Your task to perform on an android device: Open maps Image 0: 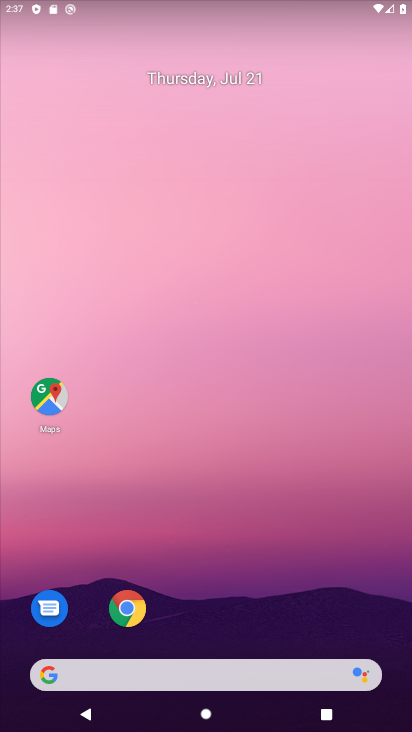
Step 0: click (50, 389)
Your task to perform on an android device: Open maps Image 1: 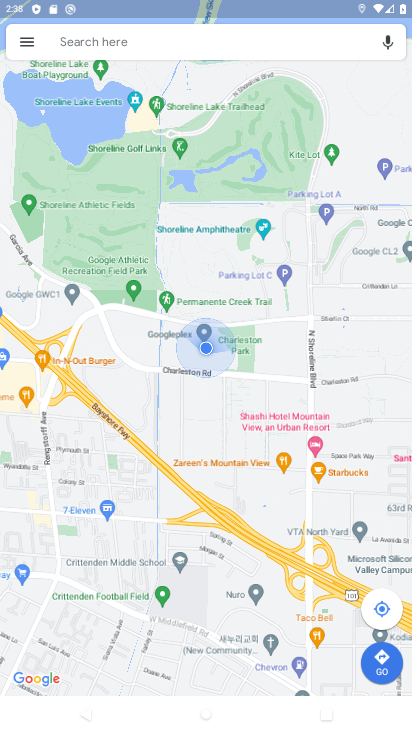
Step 1: task complete